Your task to perform on an android device: turn off airplane mode Image 0: 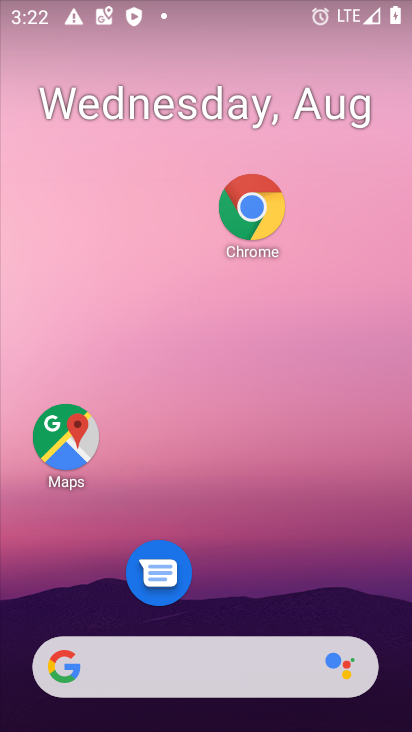
Step 0: drag from (308, 553) to (338, 72)
Your task to perform on an android device: turn off airplane mode Image 1: 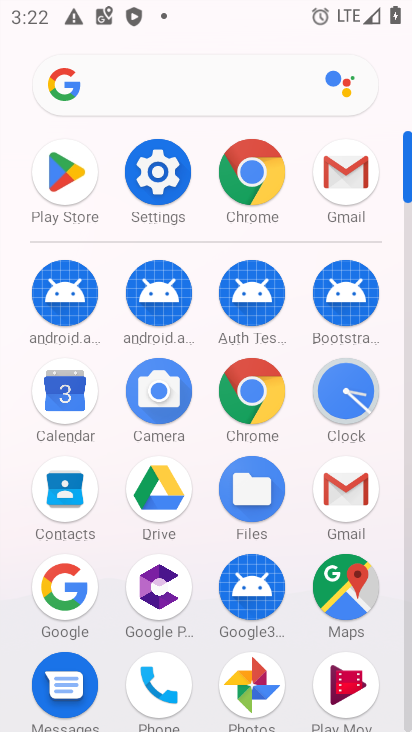
Step 1: click (162, 195)
Your task to perform on an android device: turn off airplane mode Image 2: 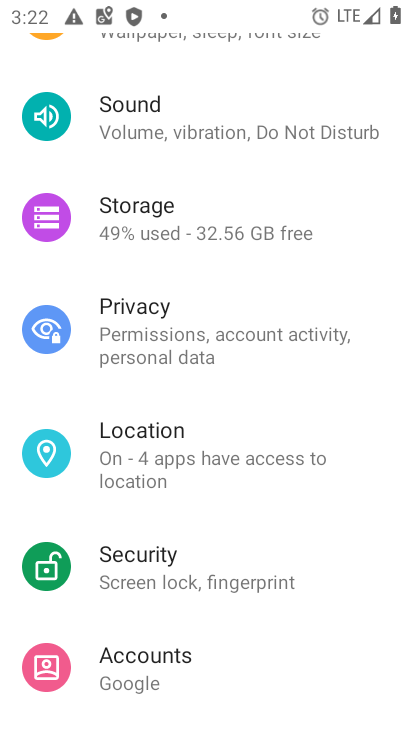
Step 2: drag from (156, 197) to (148, 539)
Your task to perform on an android device: turn off airplane mode Image 3: 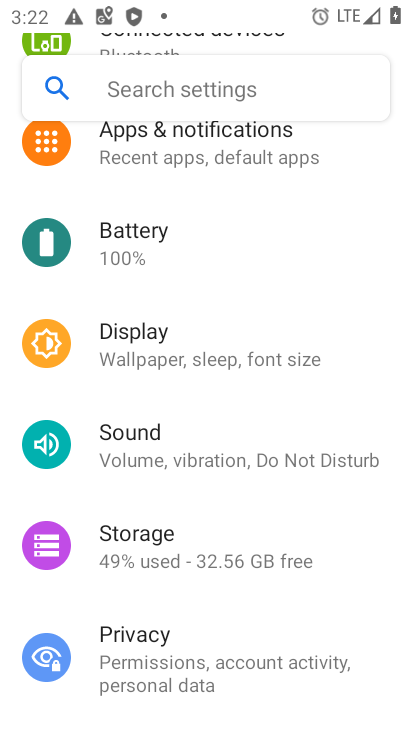
Step 3: drag from (159, 233) to (121, 669)
Your task to perform on an android device: turn off airplane mode Image 4: 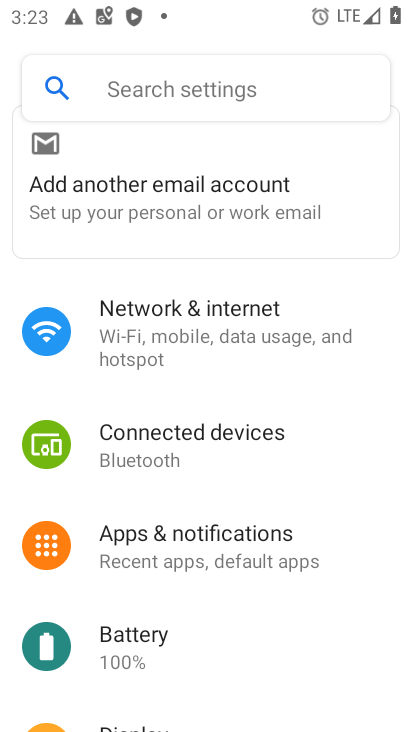
Step 4: click (193, 323)
Your task to perform on an android device: turn off airplane mode Image 5: 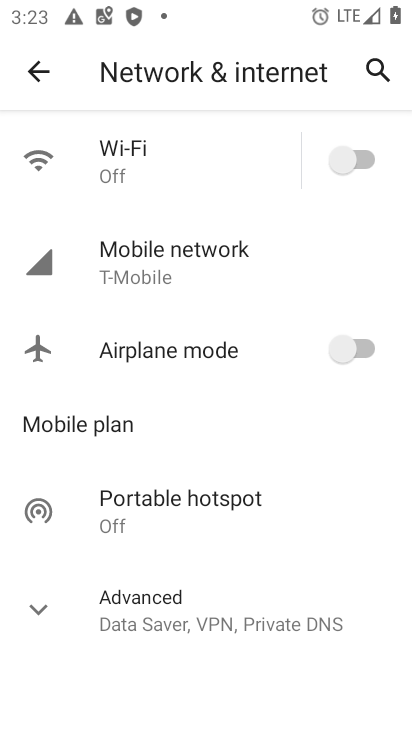
Step 5: task complete